Your task to perform on an android device: open device folders in google photos Image 0: 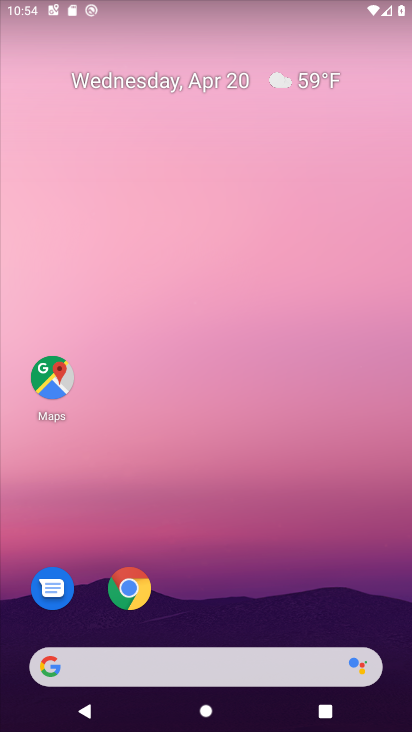
Step 0: drag from (215, 562) to (190, 11)
Your task to perform on an android device: open device folders in google photos Image 1: 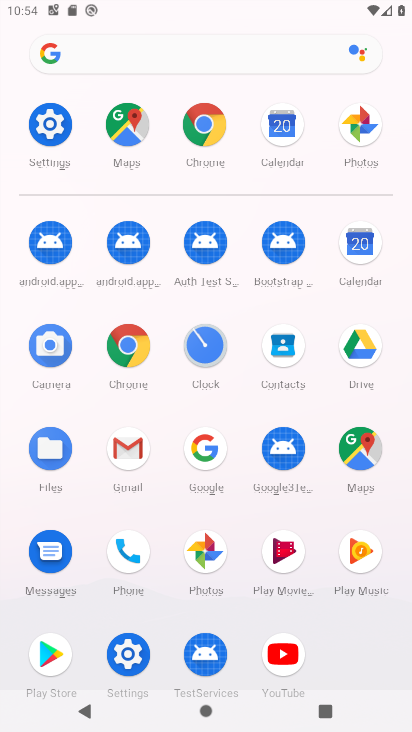
Step 1: click (358, 130)
Your task to perform on an android device: open device folders in google photos Image 2: 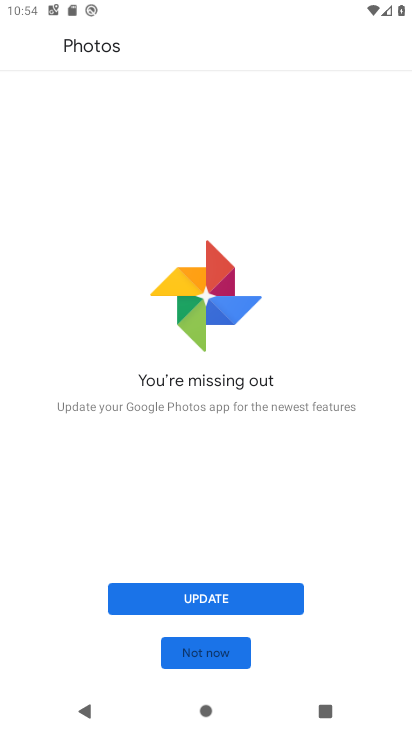
Step 2: click (197, 654)
Your task to perform on an android device: open device folders in google photos Image 3: 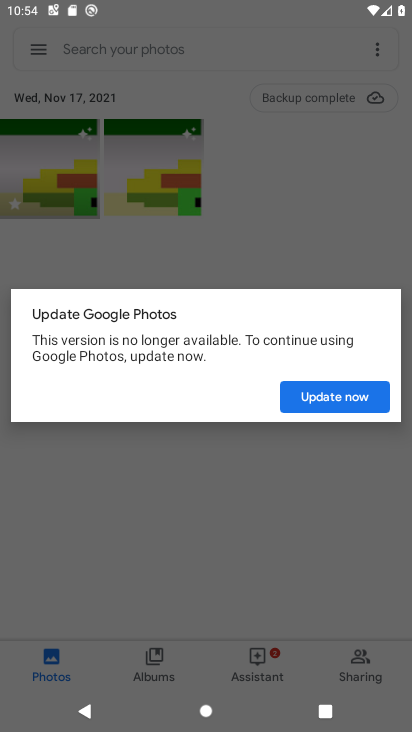
Step 3: drag from (252, 257) to (277, 486)
Your task to perform on an android device: open device folders in google photos Image 4: 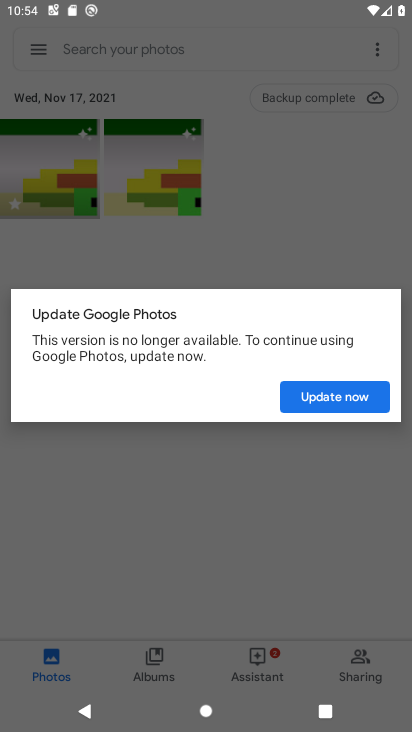
Step 4: click (333, 402)
Your task to perform on an android device: open device folders in google photos Image 5: 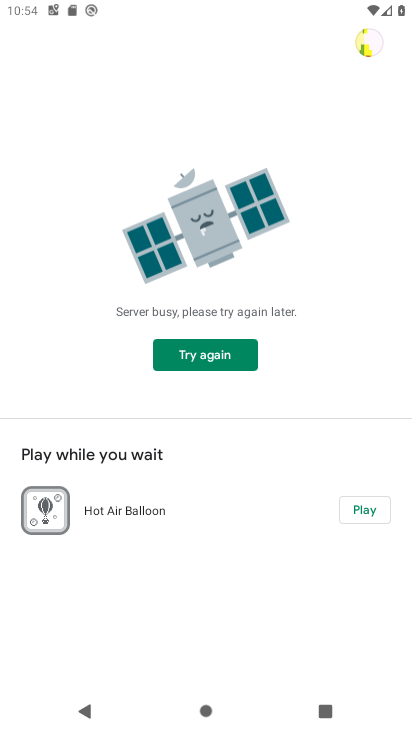
Step 5: click (188, 352)
Your task to perform on an android device: open device folders in google photos Image 6: 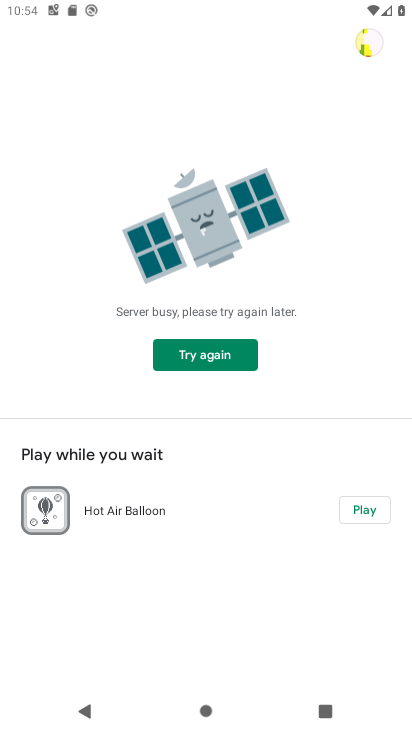
Step 6: task complete